Your task to perform on an android device: Open accessibility settings Image 0: 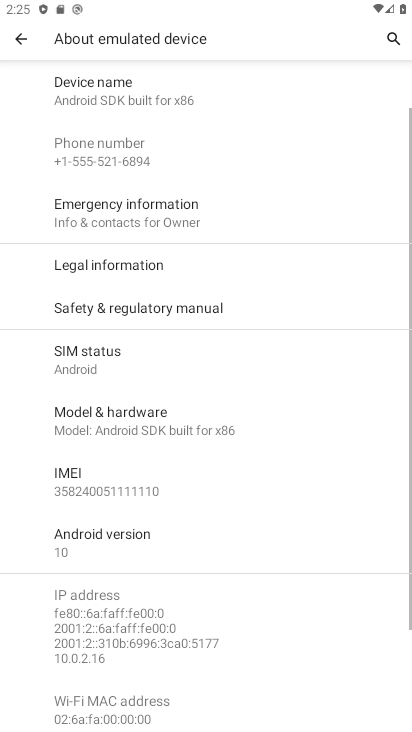
Step 0: click (27, 33)
Your task to perform on an android device: Open accessibility settings Image 1: 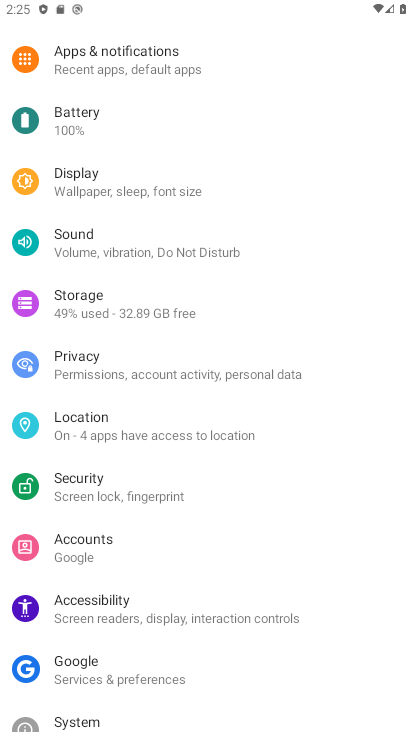
Step 1: click (164, 603)
Your task to perform on an android device: Open accessibility settings Image 2: 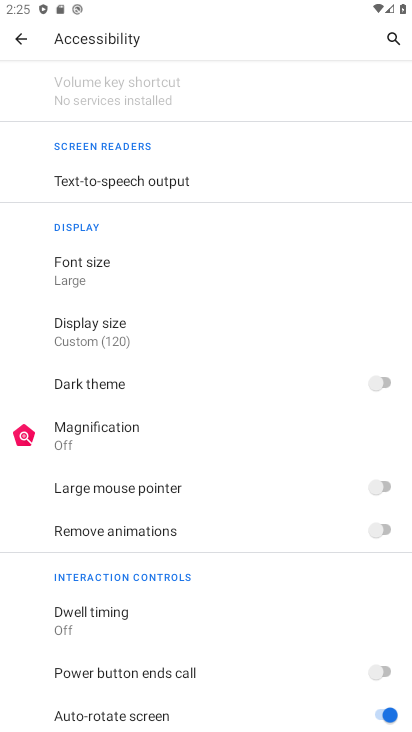
Step 2: task complete